Your task to perform on an android device: open sync settings in chrome Image 0: 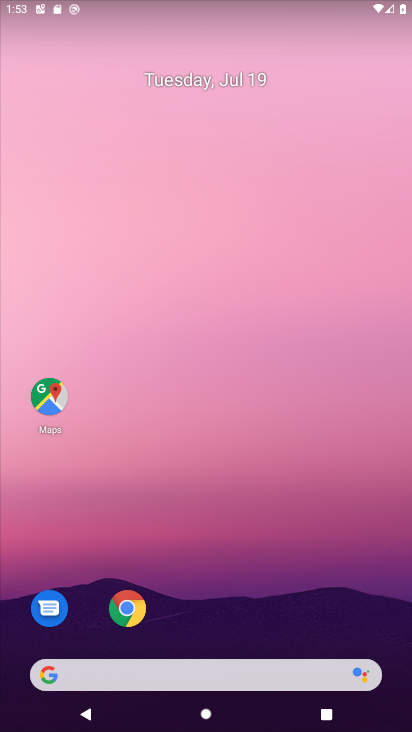
Step 0: drag from (410, 532) to (230, 410)
Your task to perform on an android device: open sync settings in chrome Image 1: 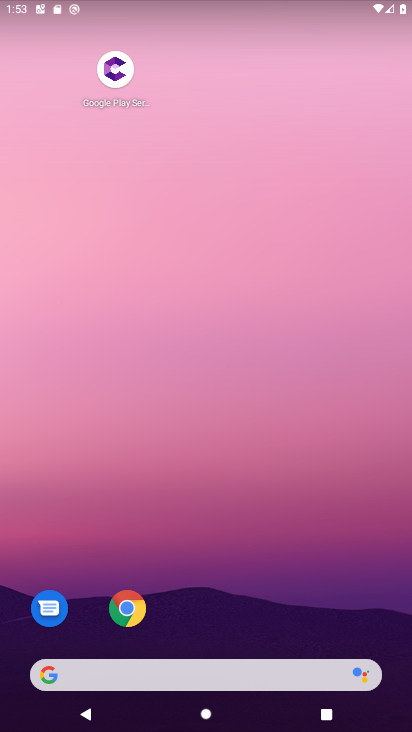
Step 1: drag from (213, 469) to (350, 152)
Your task to perform on an android device: open sync settings in chrome Image 2: 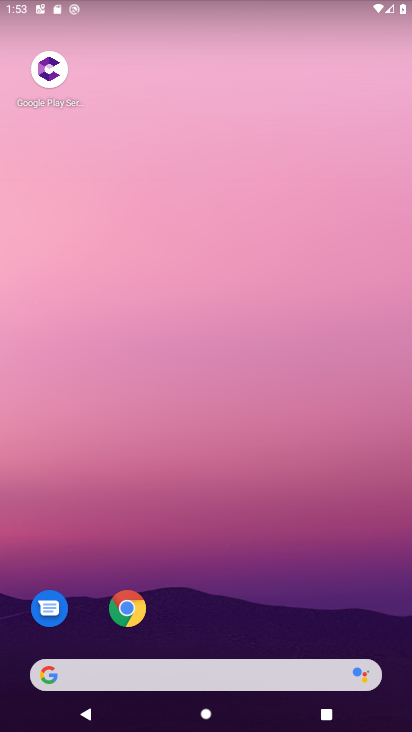
Step 2: drag from (237, 589) to (338, 2)
Your task to perform on an android device: open sync settings in chrome Image 3: 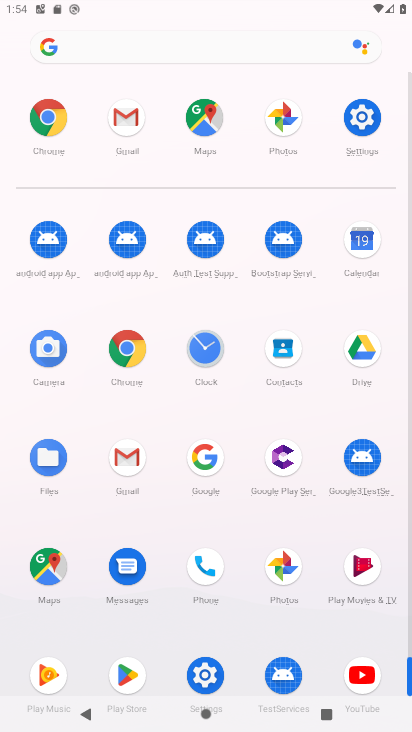
Step 3: click (135, 353)
Your task to perform on an android device: open sync settings in chrome Image 4: 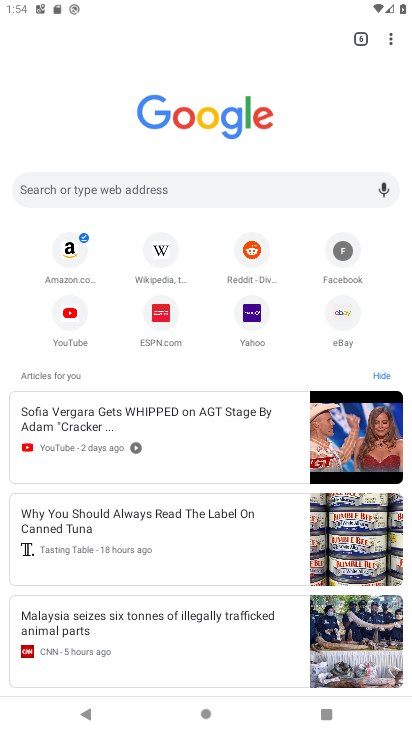
Step 4: click (388, 43)
Your task to perform on an android device: open sync settings in chrome Image 5: 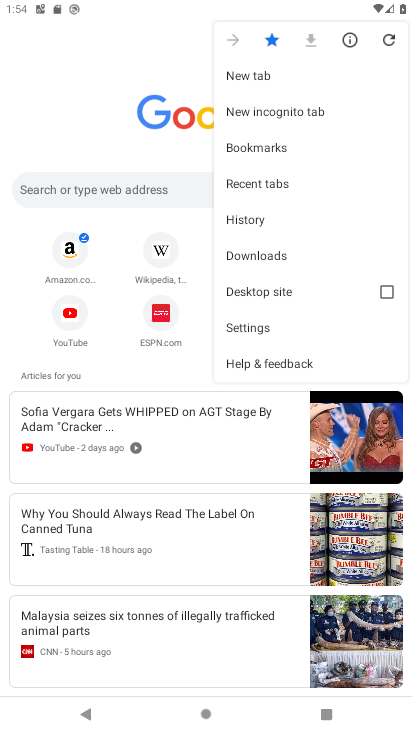
Step 5: click (274, 332)
Your task to perform on an android device: open sync settings in chrome Image 6: 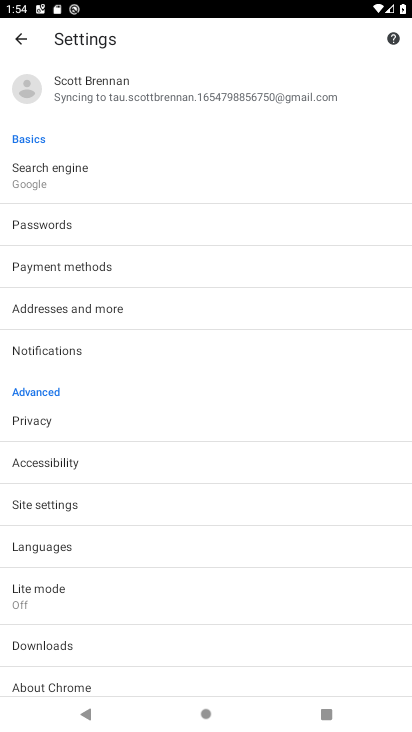
Step 6: click (145, 82)
Your task to perform on an android device: open sync settings in chrome Image 7: 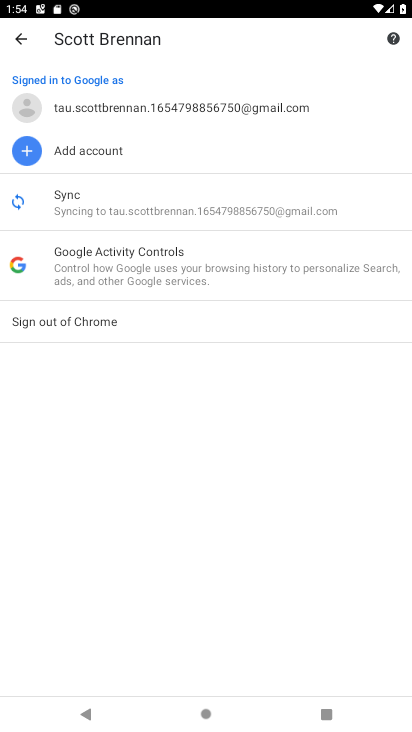
Step 7: press back button
Your task to perform on an android device: open sync settings in chrome Image 8: 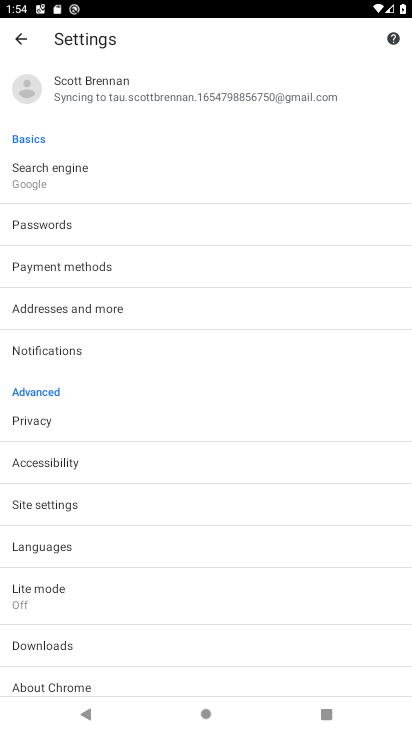
Step 8: click (134, 96)
Your task to perform on an android device: open sync settings in chrome Image 9: 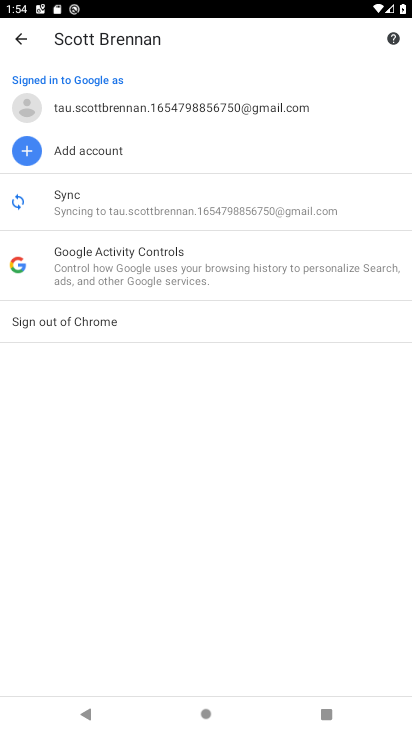
Step 9: click (129, 207)
Your task to perform on an android device: open sync settings in chrome Image 10: 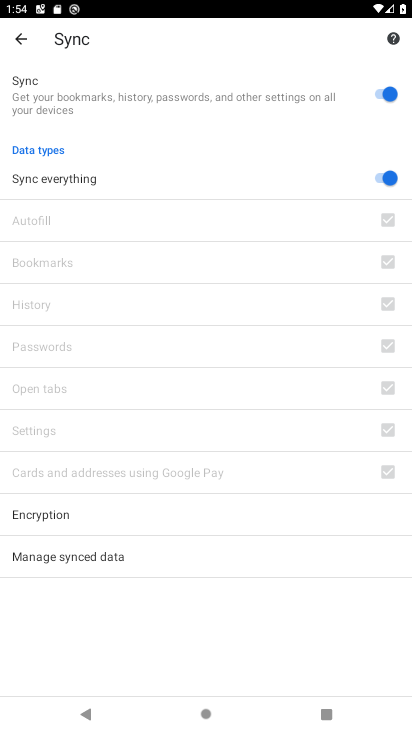
Step 10: task complete